Your task to perform on an android device: manage bookmarks in the chrome app Image 0: 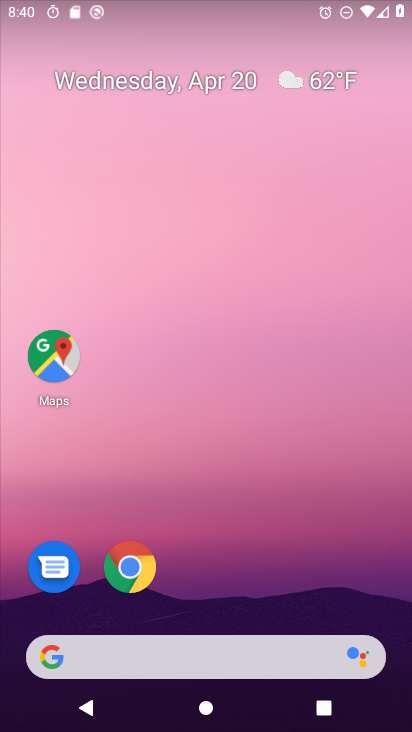
Step 0: click (125, 573)
Your task to perform on an android device: manage bookmarks in the chrome app Image 1: 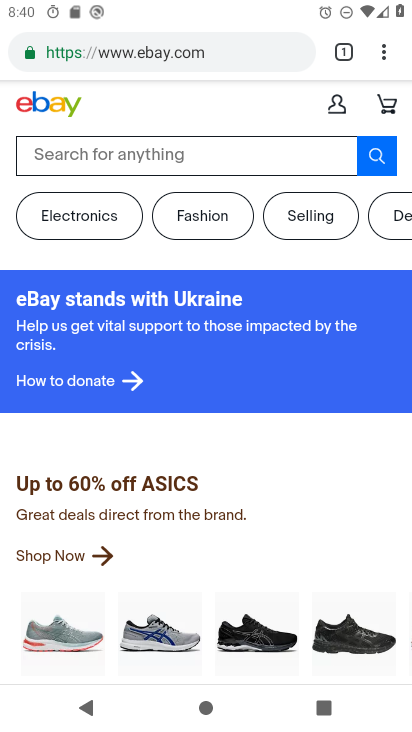
Step 1: click (381, 49)
Your task to perform on an android device: manage bookmarks in the chrome app Image 2: 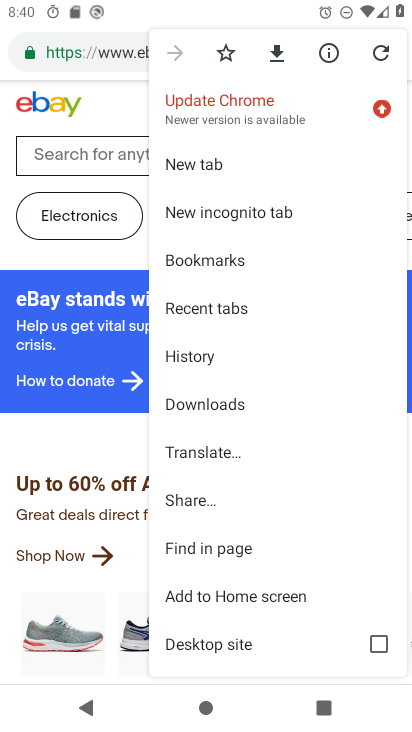
Step 2: click (184, 258)
Your task to perform on an android device: manage bookmarks in the chrome app Image 3: 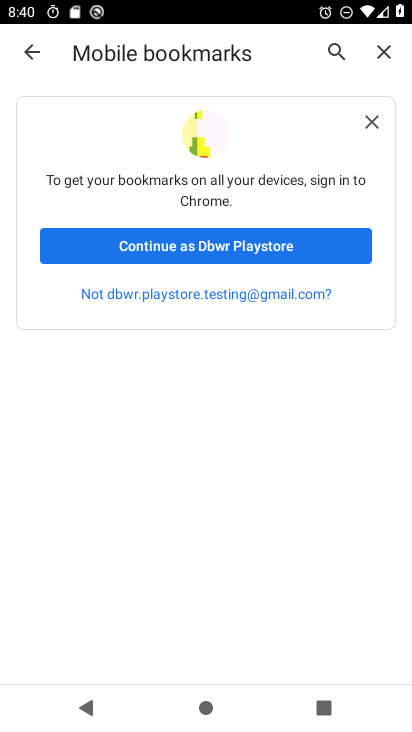
Step 3: click (173, 251)
Your task to perform on an android device: manage bookmarks in the chrome app Image 4: 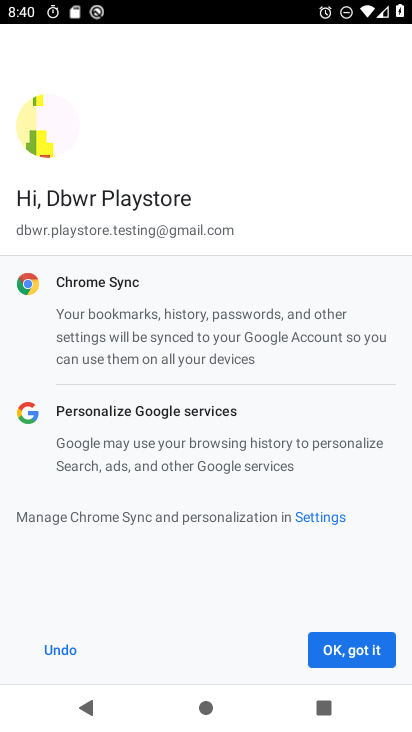
Step 4: click (354, 658)
Your task to perform on an android device: manage bookmarks in the chrome app Image 5: 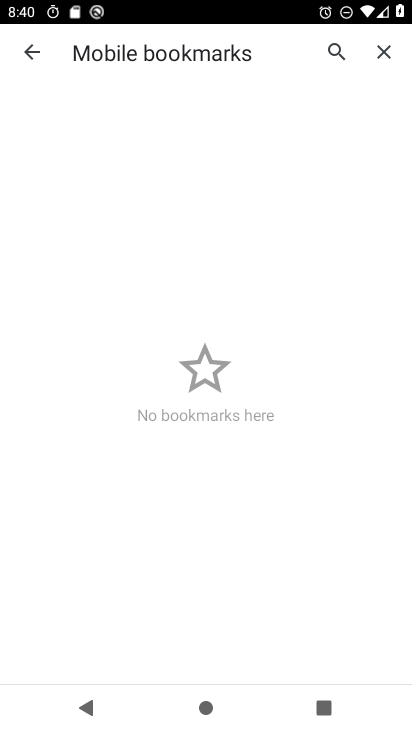
Step 5: drag from (214, 204) to (205, 494)
Your task to perform on an android device: manage bookmarks in the chrome app Image 6: 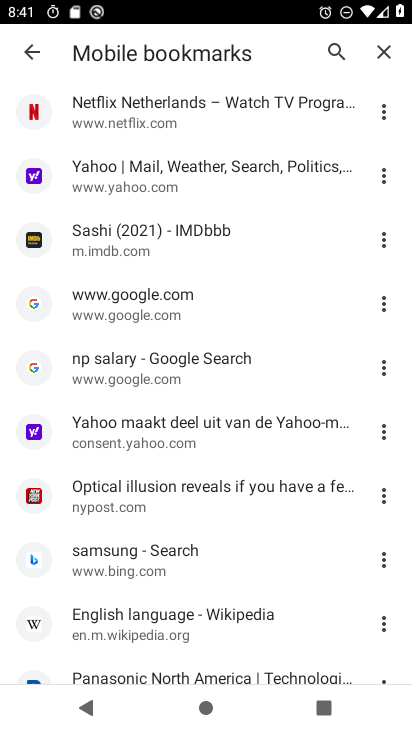
Step 6: click (386, 302)
Your task to perform on an android device: manage bookmarks in the chrome app Image 7: 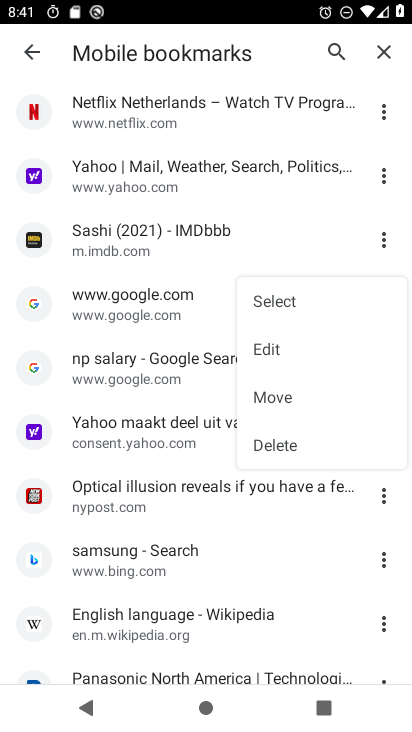
Step 7: click (257, 439)
Your task to perform on an android device: manage bookmarks in the chrome app Image 8: 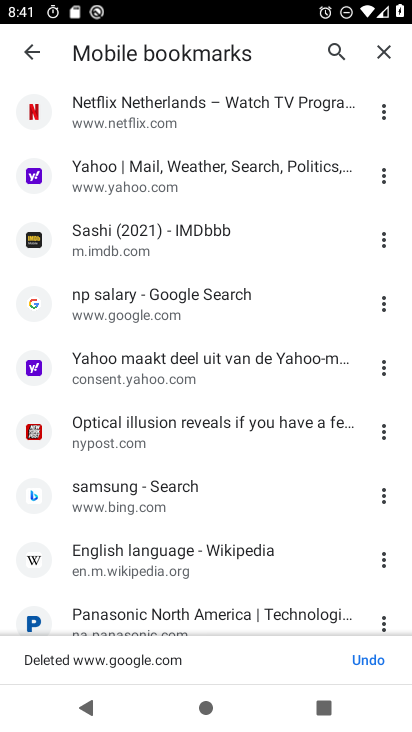
Step 8: task complete